Your task to perform on an android device: Go to Yahoo.com Image 0: 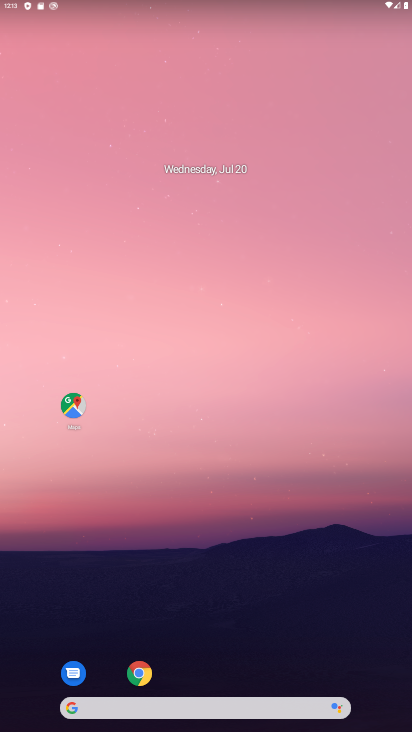
Step 0: drag from (297, 642) to (231, 162)
Your task to perform on an android device: Go to Yahoo.com Image 1: 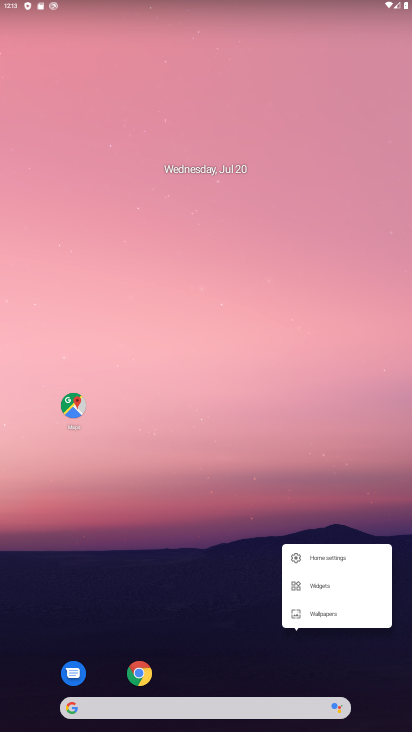
Step 1: drag from (217, 667) to (201, 198)
Your task to perform on an android device: Go to Yahoo.com Image 2: 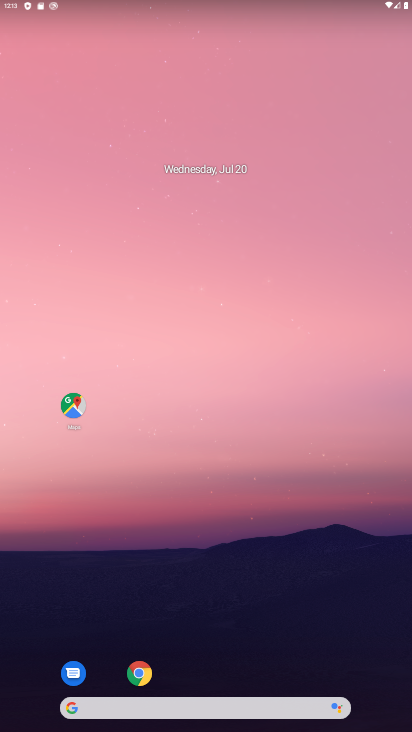
Step 2: click (136, 679)
Your task to perform on an android device: Go to Yahoo.com Image 3: 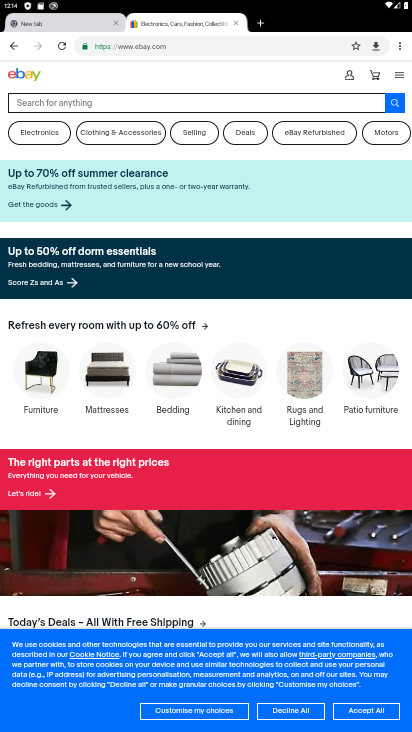
Step 3: click (80, 17)
Your task to perform on an android device: Go to Yahoo.com Image 4: 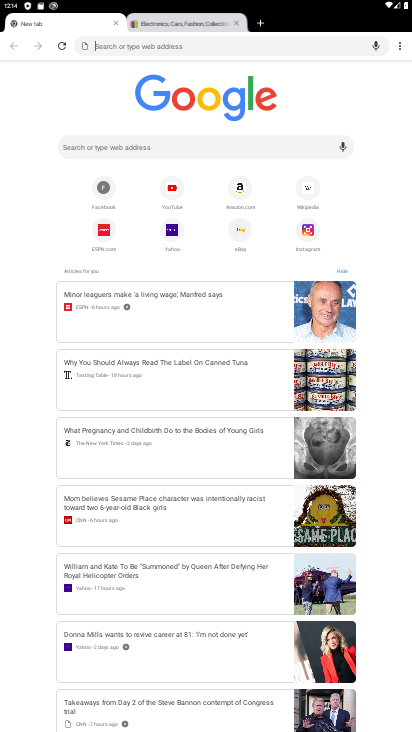
Step 4: click (174, 239)
Your task to perform on an android device: Go to Yahoo.com Image 5: 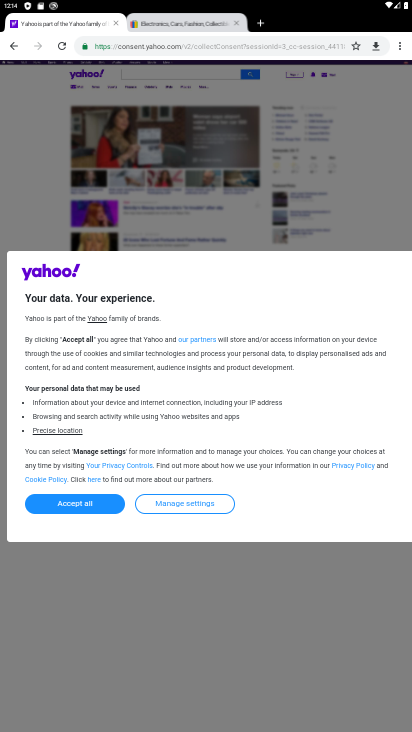
Step 5: task complete